Your task to perform on an android device: search for 2021 honda civic Image 0: 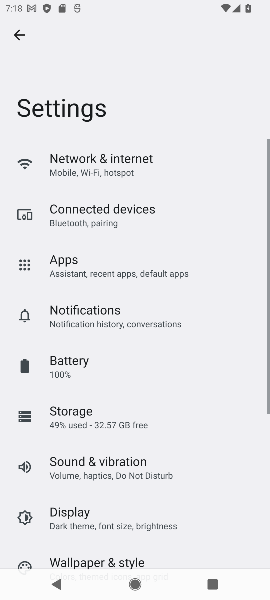
Step 0: press home button
Your task to perform on an android device: search for 2021 honda civic Image 1: 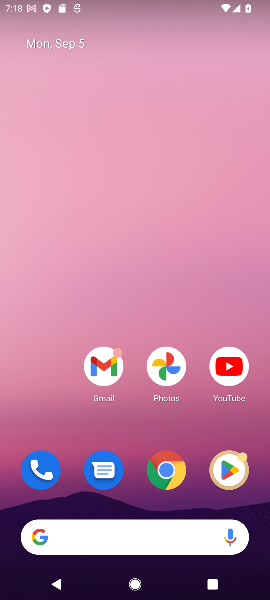
Step 1: click (129, 538)
Your task to perform on an android device: search for 2021 honda civic Image 2: 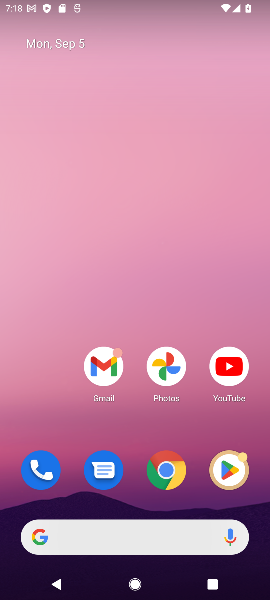
Step 2: click (162, 476)
Your task to perform on an android device: search for 2021 honda civic Image 3: 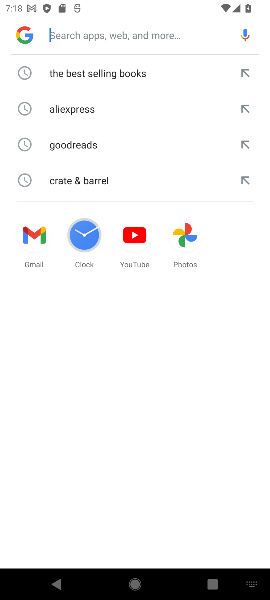
Step 3: type "2021 honda civic"
Your task to perform on an android device: search for 2021 honda civic Image 4: 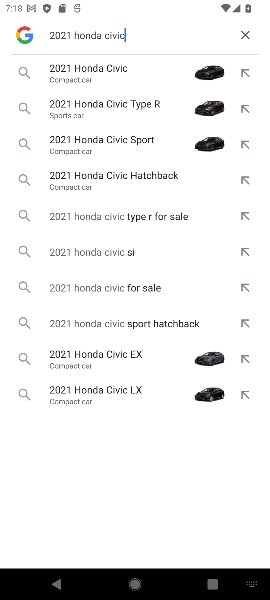
Step 4: click (97, 62)
Your task to perform on an android device: search for 2021 honda civic Image 5: 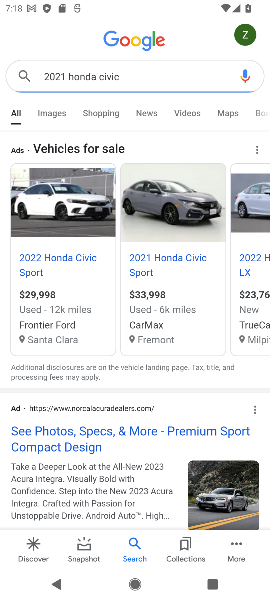
Step 5: task complete